Your task to perform on an android device: Do I have any events this weekend? Image 0: 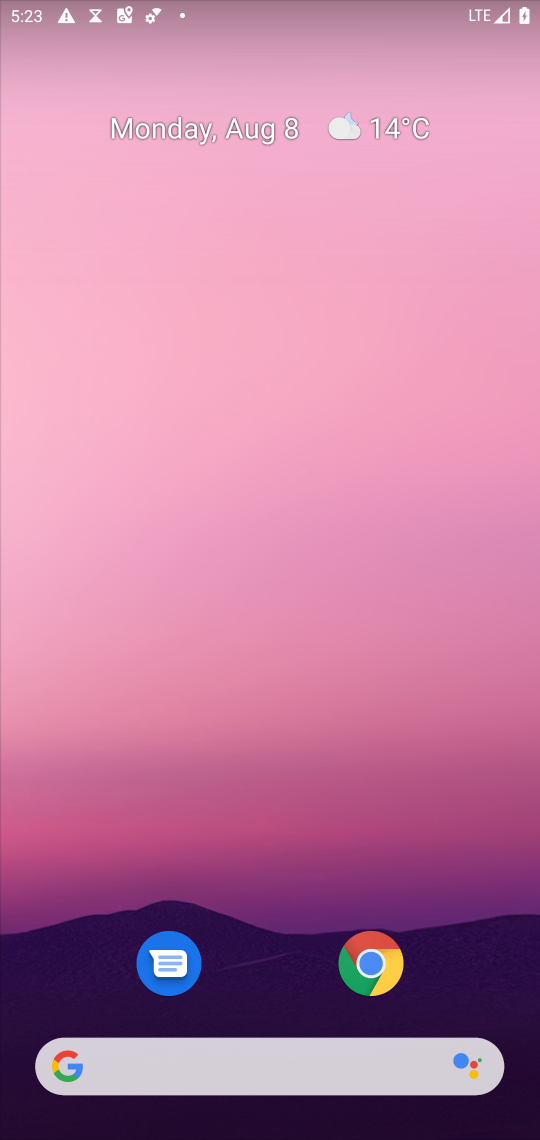
Step 0: drag from (295, 857) to (181, 10)
Your task to perform on an android device: Do I have any events this weekend? Image 1: 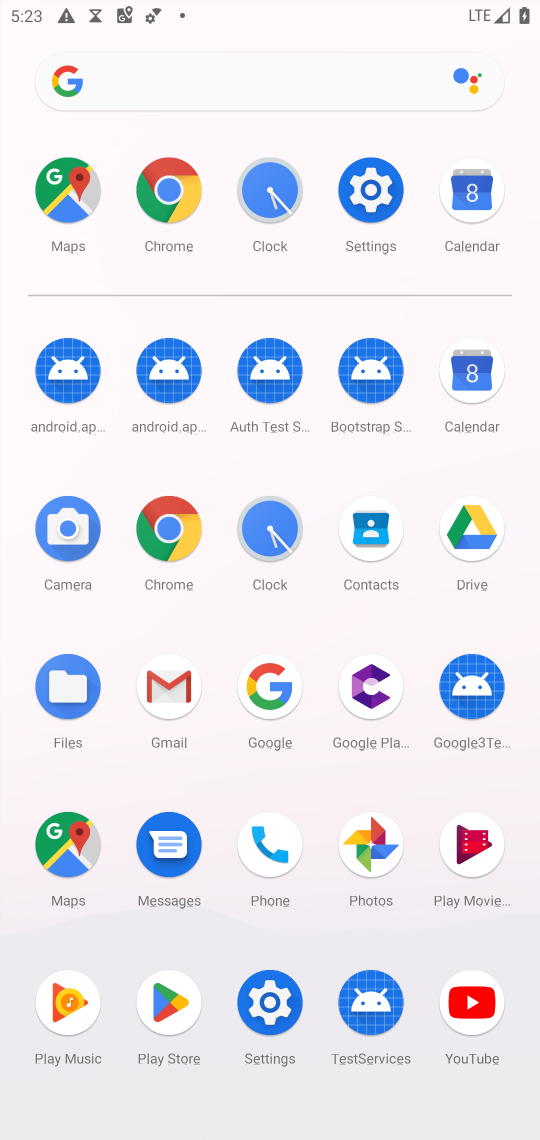
Step 1: click (480, 389)
Your task to perform on an android device: Do I have any events this weekend? Image 2: 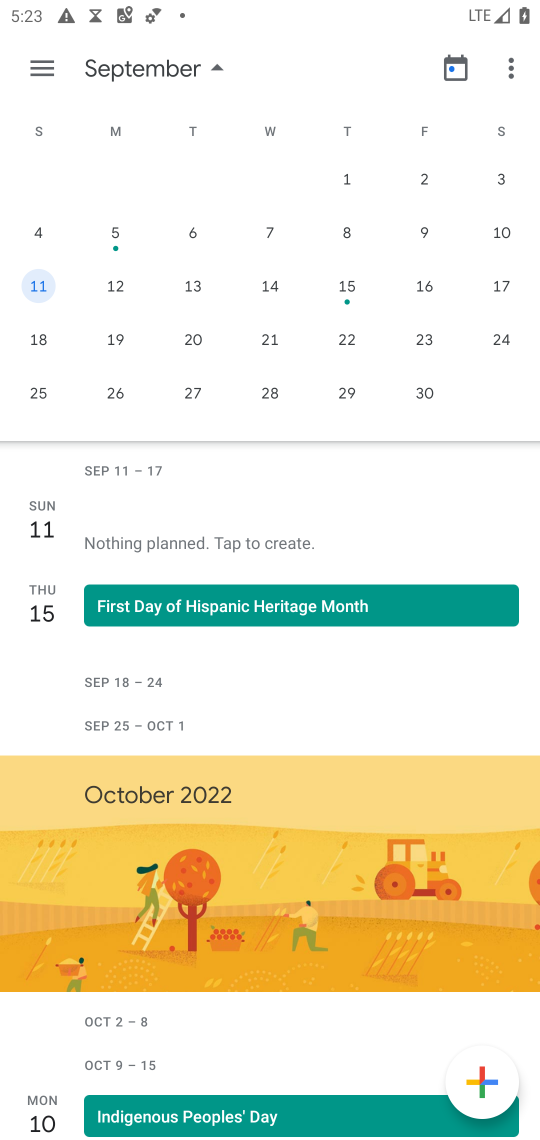
Step 2: drag from (91, 305) to (501, 282)
Your task to perform on an android device: Do I have any events this weekend? Image 3: 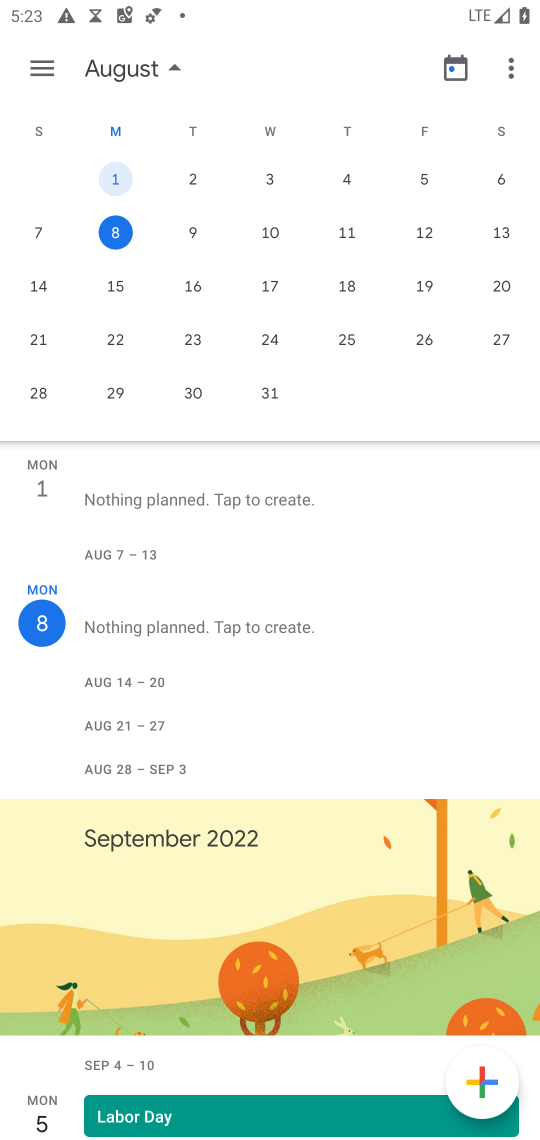
Step 3: click (507, 236)
Your task to perform on an android device: Do I have any events this weekend? Image 4: 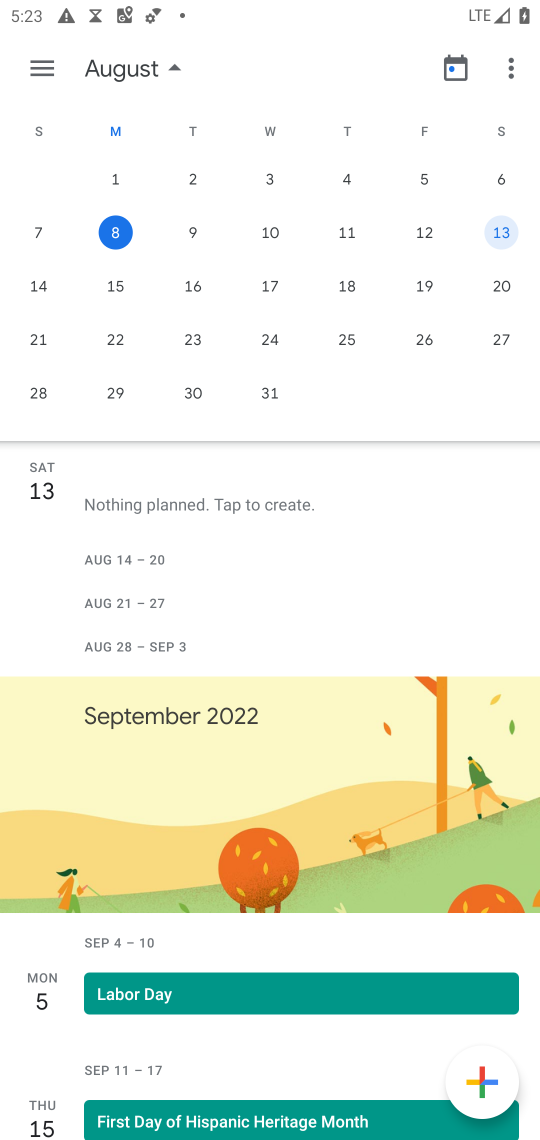
Step 4: task complete